Your task to perform on an android device: check android version Image 0: 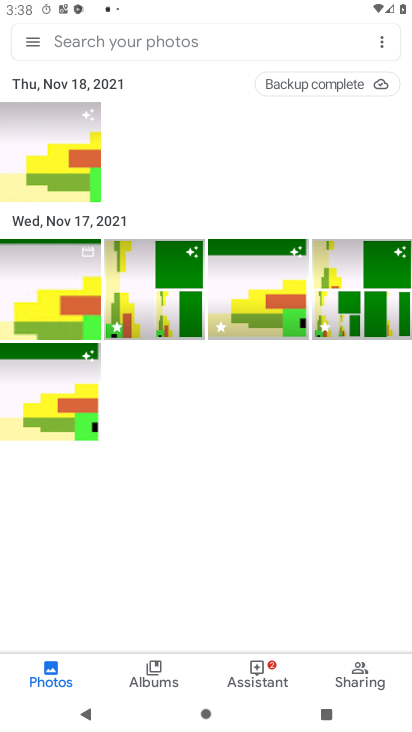
Step 0: press home button
Your task to perform on an android device: check android version Image 1: 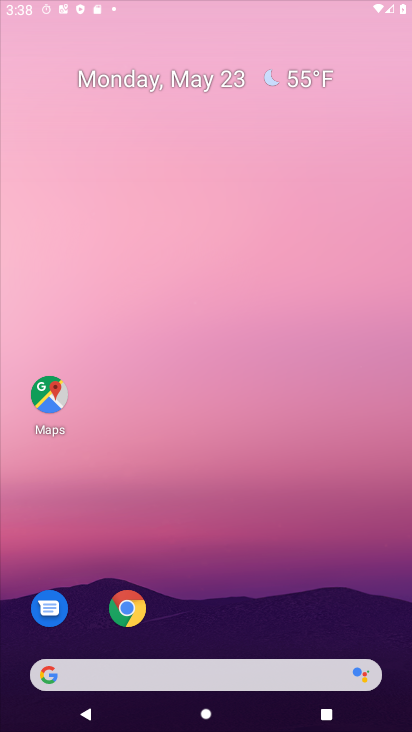
Step 1: drag from (316, 581) to (206, 39)
Your task to perform on an android device: check android version Image 2: 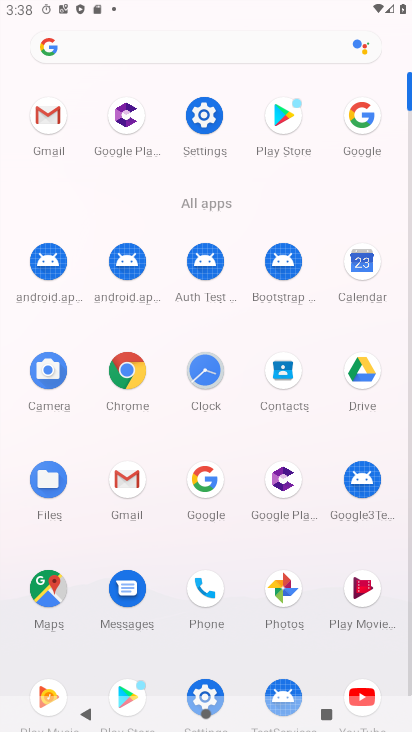
Step 2: click (208, 112)
Your task to perform on an android device: check android version Image 3: 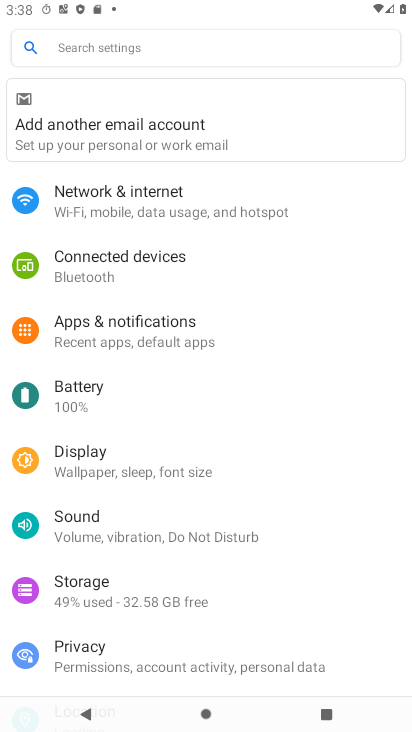
Step 3: drag from (310, 650) to (298, 29)
Your task to perform on an android device: check android version Image 4: 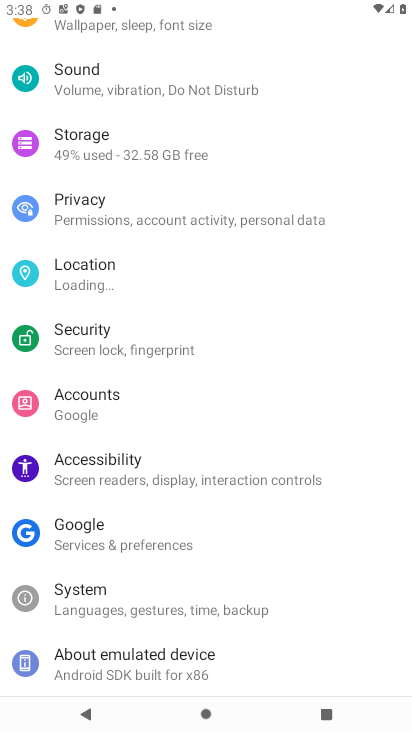
Step 4: click (224, 662)
Your task to perform on an android device: check android version Image 5: 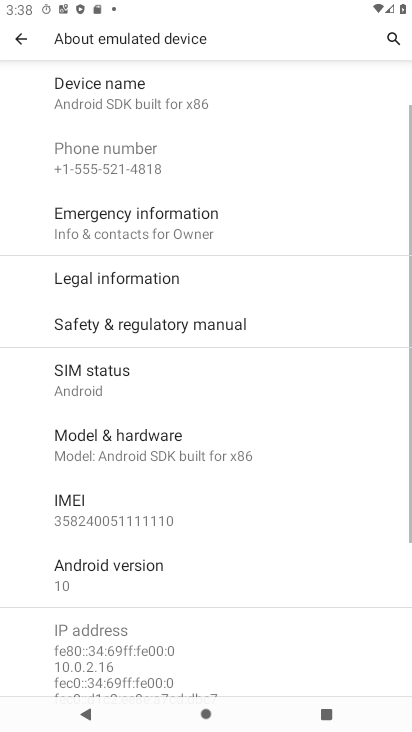
Step 5: click (232, 562)
Your task to perform on an android device: check android version Image 6: 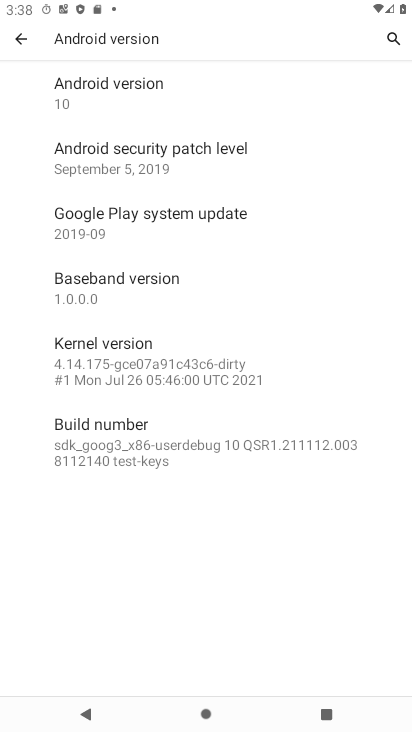
Step 6: task complete